Your task to perform on an android device: Open settings Image 0: 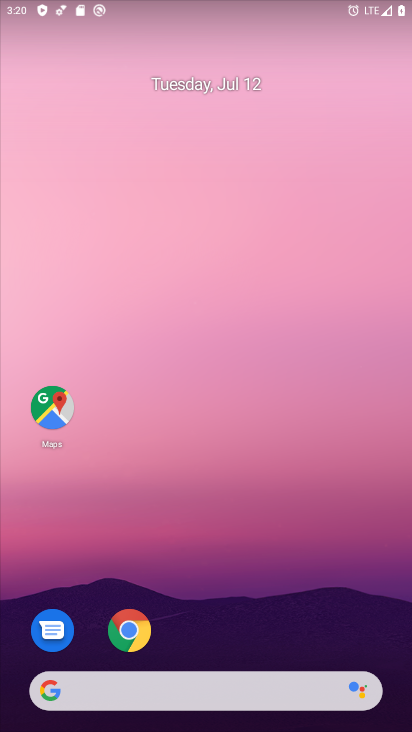
Step 0: drag from (229, 626) to (386, 9)
Your task to perform on an android device: Open settings Image 1: 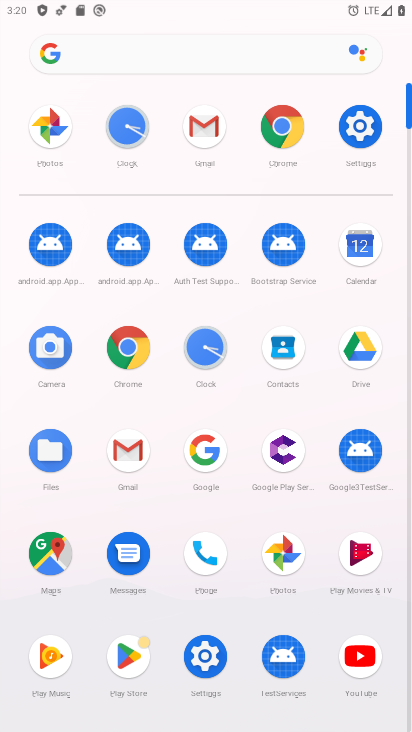
Step 1: click (199, 655)
Your task to perform on an android device: Open settings Image 2: 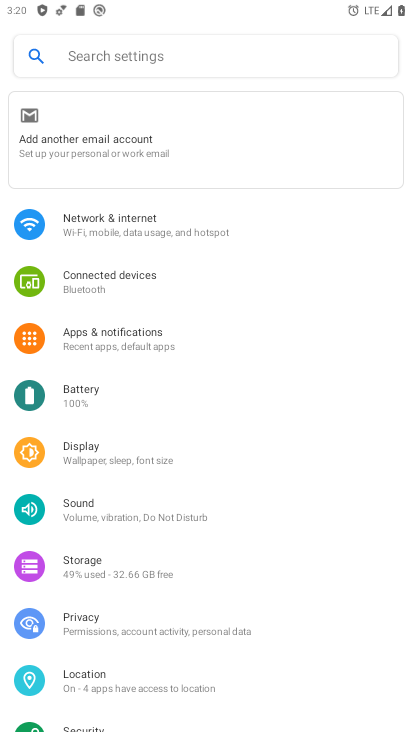
Step 2: task complete